Your task to perform on an android device: Go to privacy settings Image 0: 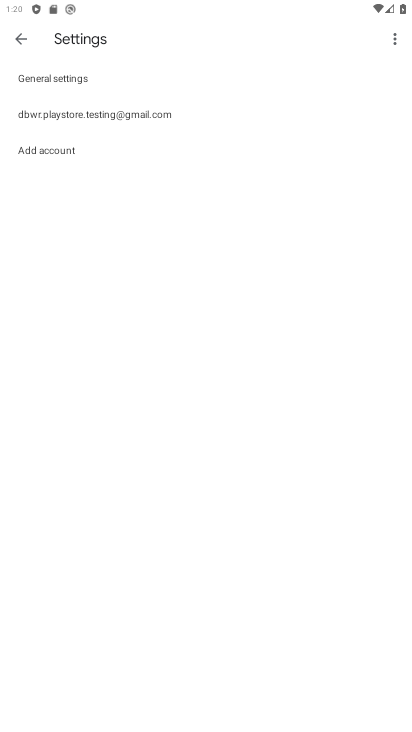
Step 0: press home button
Your task to perform on an android device: Go to privacy settings Image 1: 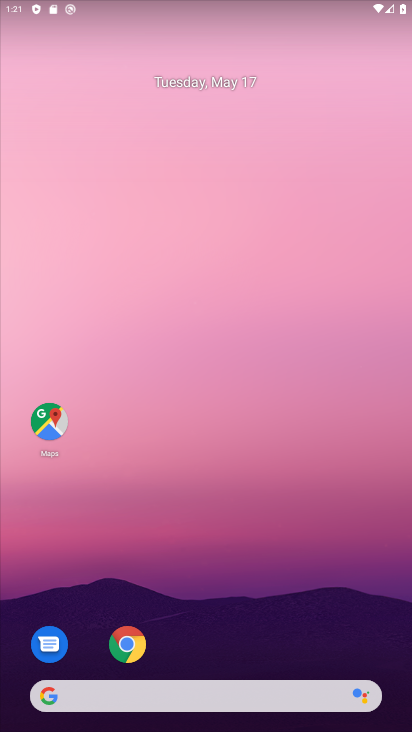
Step 1: drag from (169, 689) to (215, 40)
Your task to perform on an android device: Go to privacy settings Image 2: 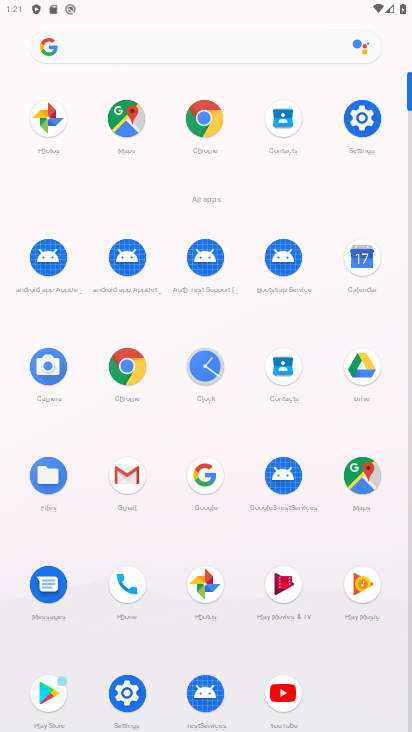
Step 2: click (136, 697)
Your task to perform on an android device: Go to privacy settings Image 3: 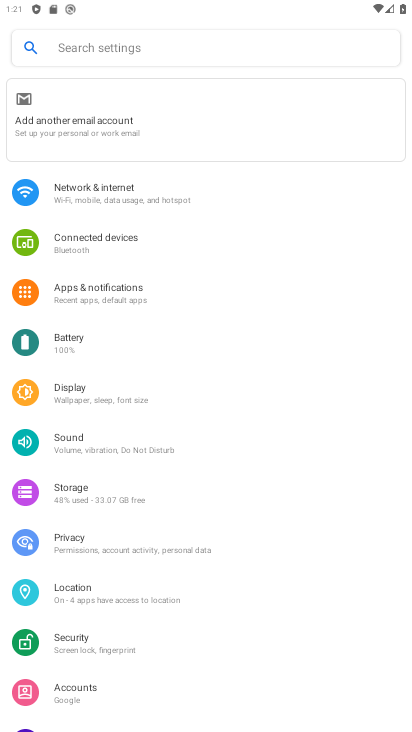
Step 3: drag from (115, 643) to (108, 245)
Your task to perform on an android device: Go to privacy settings Image 4: 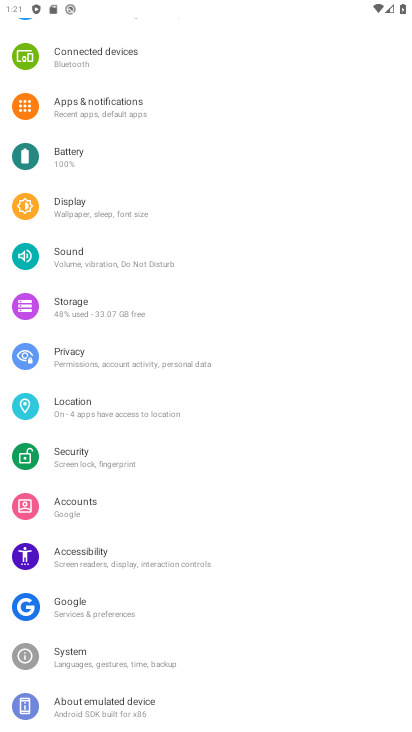
Step 4: click (82, 358)
Your task to perform on an android device: Go to privacy settings Image 5: 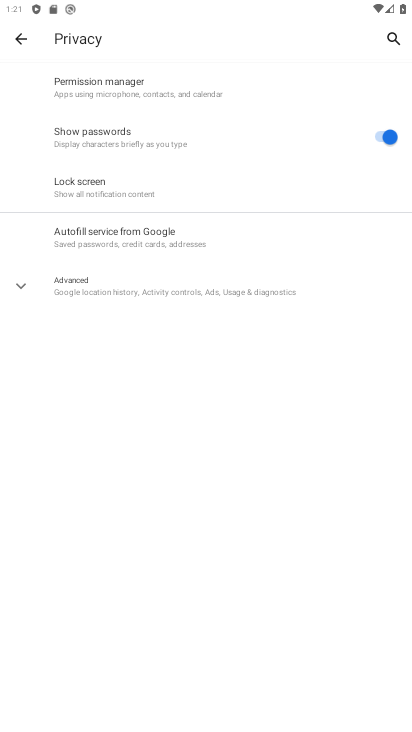
Step 5: task complete